Your task to perform on an android device: toggle data saver in the chrome app Image 0: 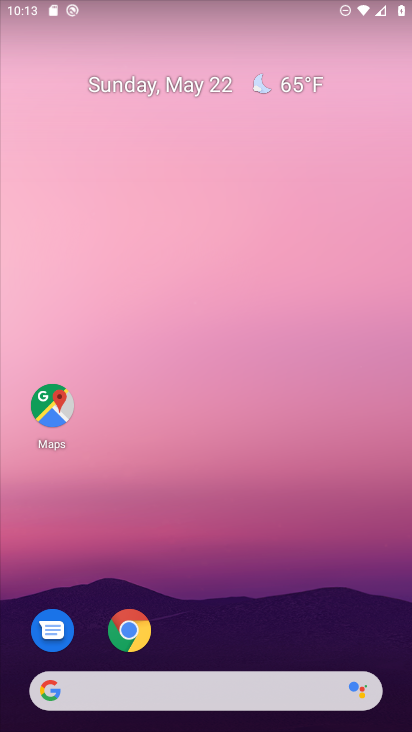
Step 0: press home button
Your task to perform on an android device: toggle data saver in the chrome app Image 1: 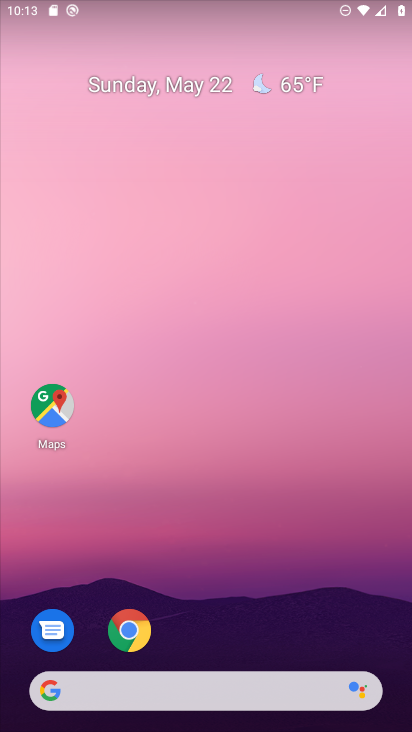
Step 1: click (136, 639)
Your task to perform on an android device: toggle data saver in the chrome app Image 2: 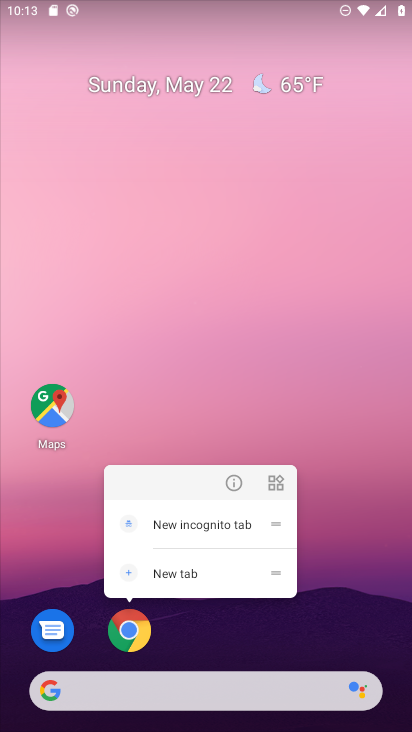
Step 2: click (138, 633)
Your task to perform on an android device: toggle data saver in the chrome app Image 3: 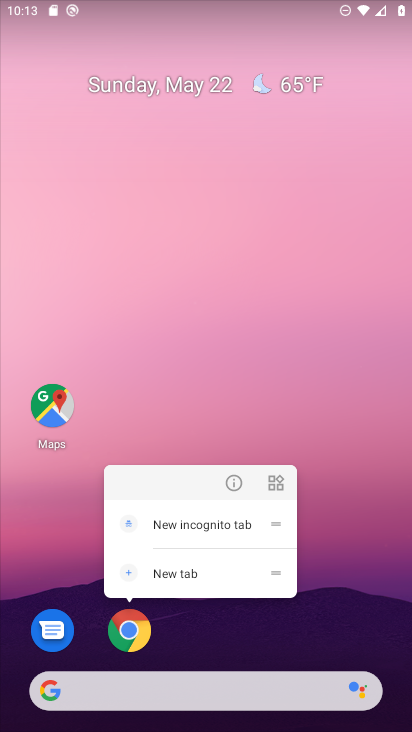
Step 3: click (131, 633)
Your task to perform on an android device: toggle data saver in the chrome app Image 4: 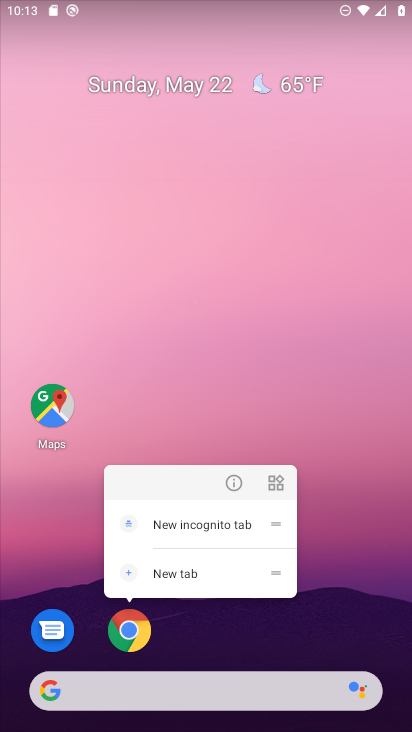
Step 4: click (122, 632)
Your task to perform on an android device: toggle data saver in the chrome app Image 5: 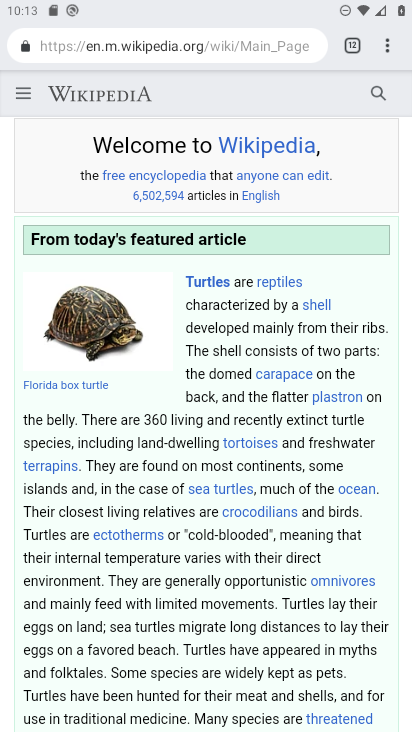
Step 5: drag from (391, 46) to (292, 539)
Your task to perform on an android device: toggle data saver in the chrome app Image 6: 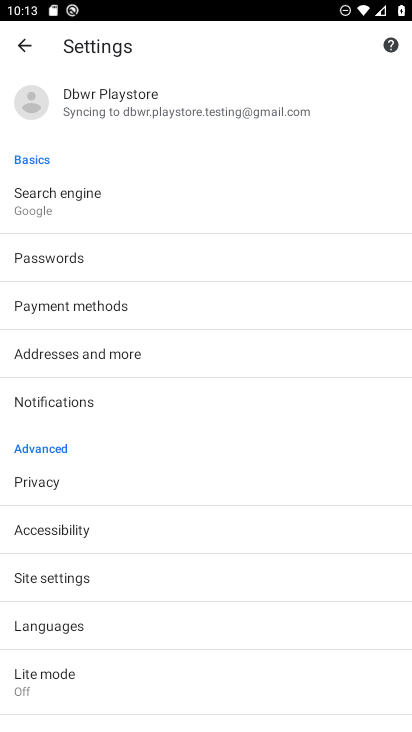
Step 6: drag from (221, 520) to (312, 306)
Your task to perform on an android device: toggle data saver in the chrome app Image 7: 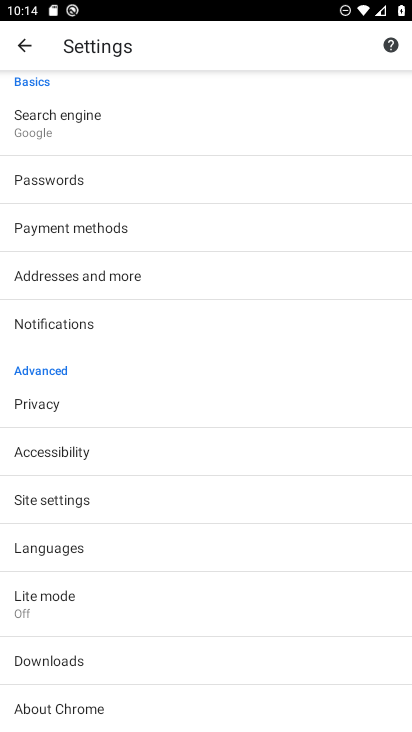
Step 7: click (109, 603)
Your task to perform on an android device: toggle data saver in the chrome app Image 8: 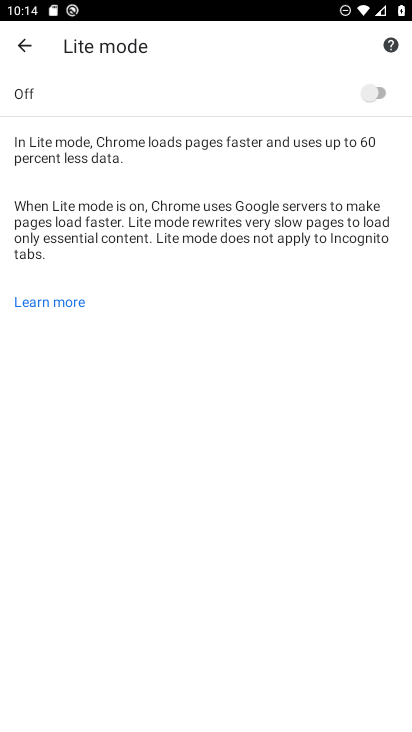
Step 8: click (386, 81)
Your task to perform on an android device: toggle data saver in the chrome app Image 9: 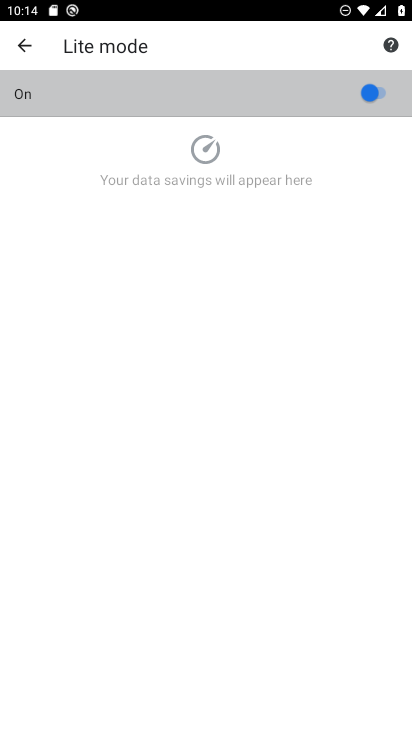
Step 9: click (382, 90)
Your task to perform on an android device: toggle data saver in the chrome app Image 10: 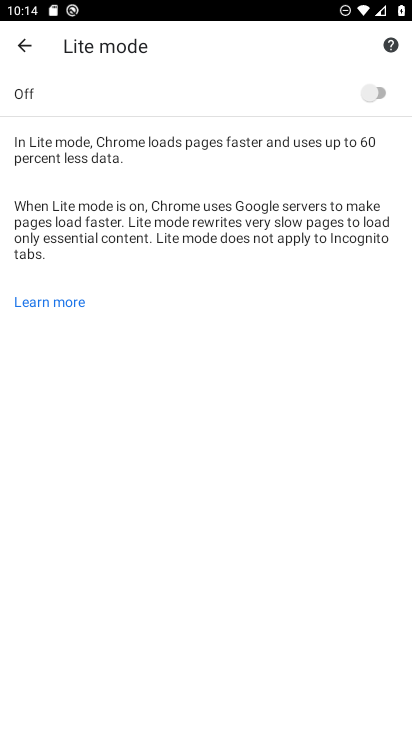
Step 10: click (382, 91)
Your task to perform on an android device: toggle data saver in the chrome app Image 11: 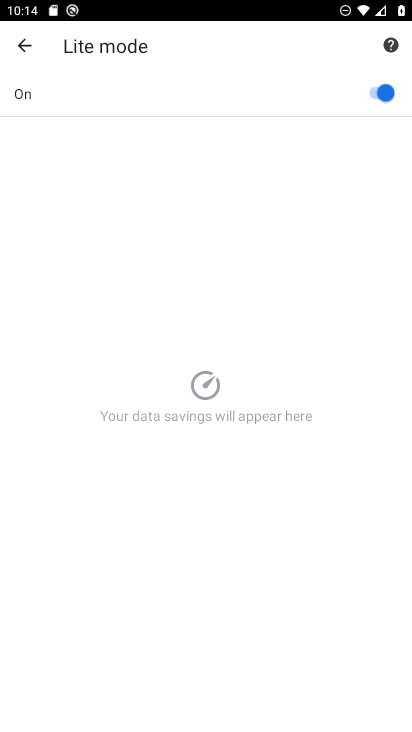
Step 11: task complete